Your task to perform on an android device: Go to internet settings Image 0: 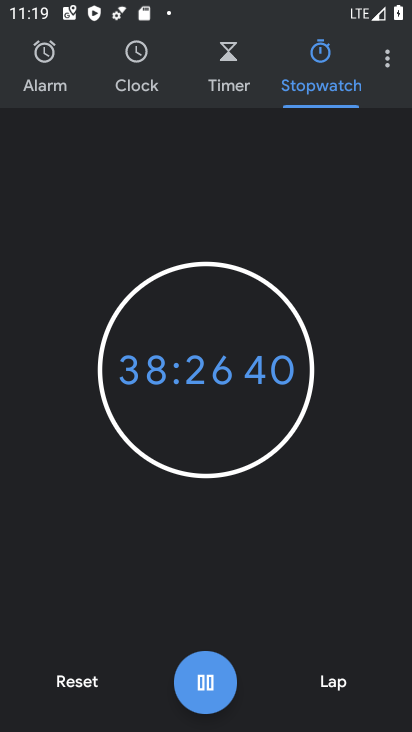
Step 0: press home button
Your task to perform on an android device: Go to internet settings Image 1: 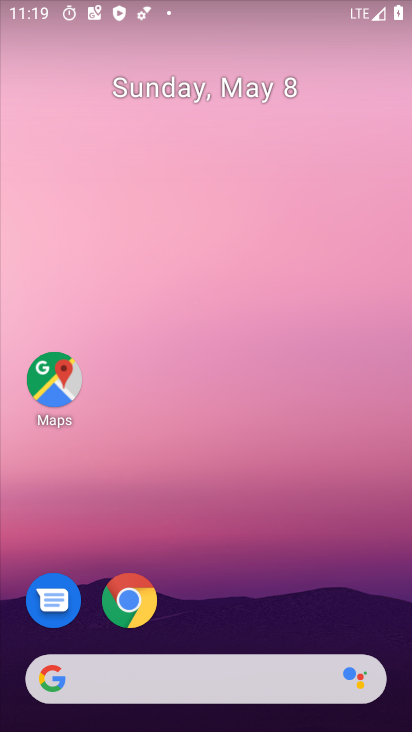
Step 1: drag from (12, 629) to (318, 128)
Your task to perform on an android device: Go to internet settings Image 2: 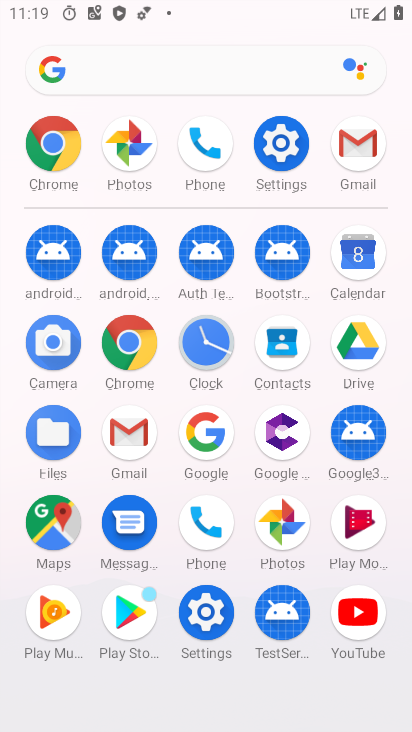
Step 2: click (280, 146)
Your task to perform on an android device: Go to internet settings Image 3: 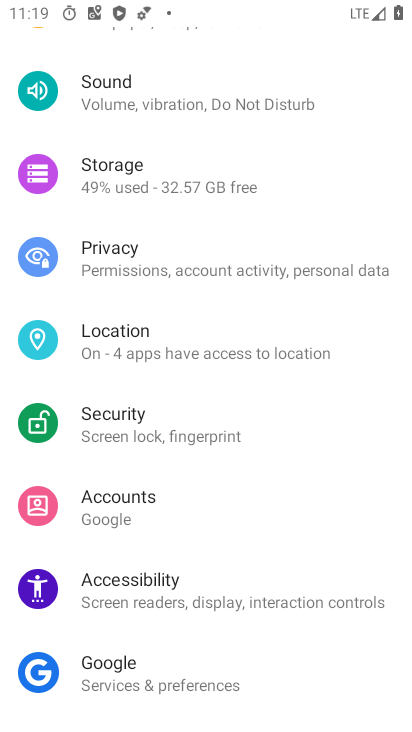
Step 3: drag from (248, 91) to (215, 494)
Your task to perform on an android device: Go to internet settings Image 4: 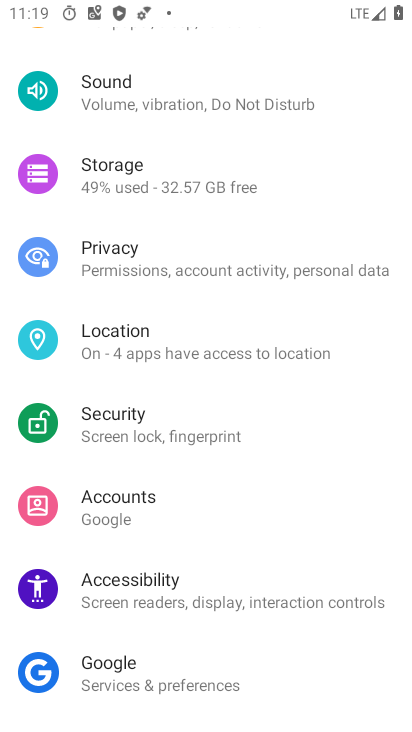
Step 4: drag from (286, 182) to (243, 617)
Your task to perform on an android device: Go to internet settings Image 5: 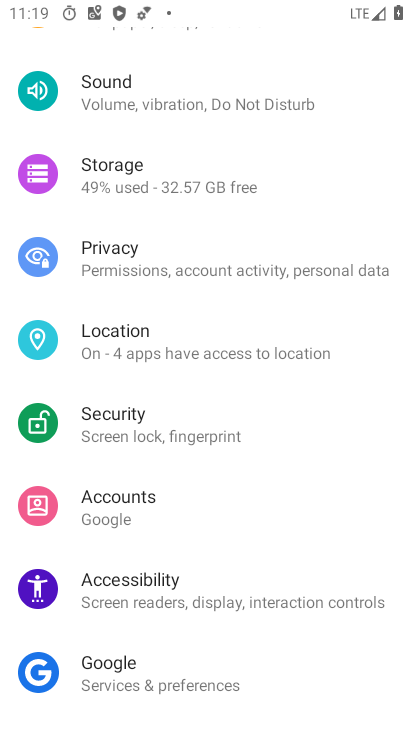
Step 5: drag from (316, 153) to (231, 729)
Your task to perform on an android device: Go to internet settings Image 6: 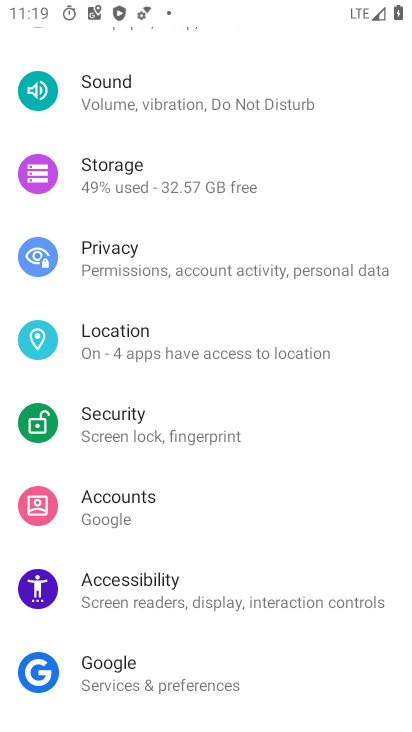
Step 6: drag from (248, 171) to (184, 715)
Your task to perform on an android device: Go to internet settings Image 7: 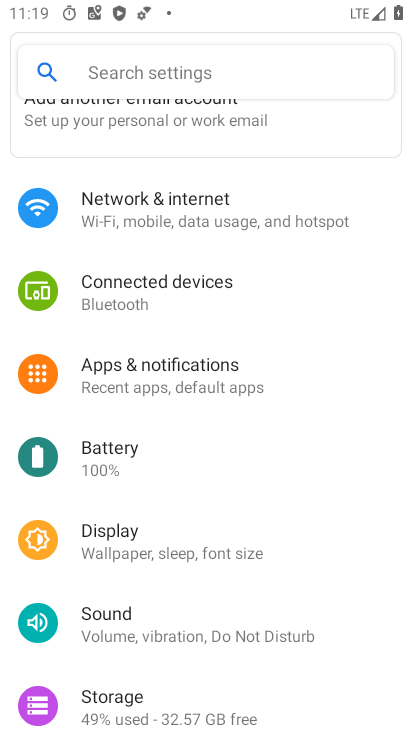
Step 7: drag from (257, 205) to (250, 573)
Your task to perform on an android device: Go to internet settings Image 8: 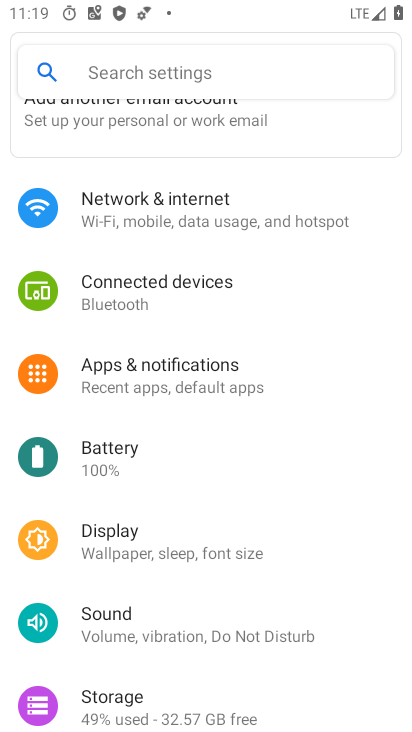
Step 8: click (217, 218)
Your task to perform on an android device: Go to internet settings Image 9: 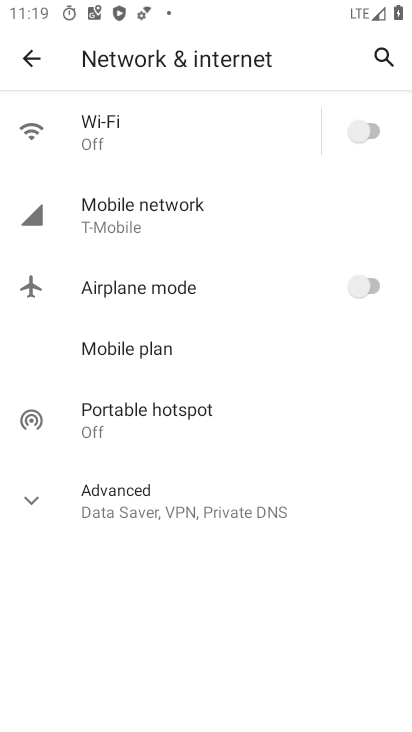
Step 9: click (217, 218)
Your task to perform on an android device: Go to internet settings Image 10: 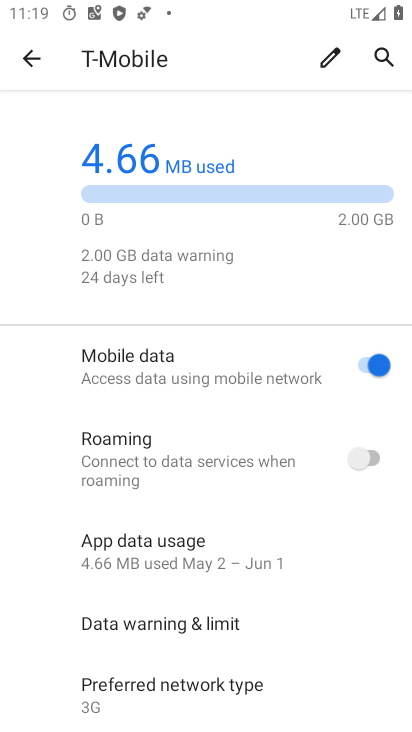
Step 10: task complete